Your task to perform on an android device: choose inbox layout in the gmail app Image 0: 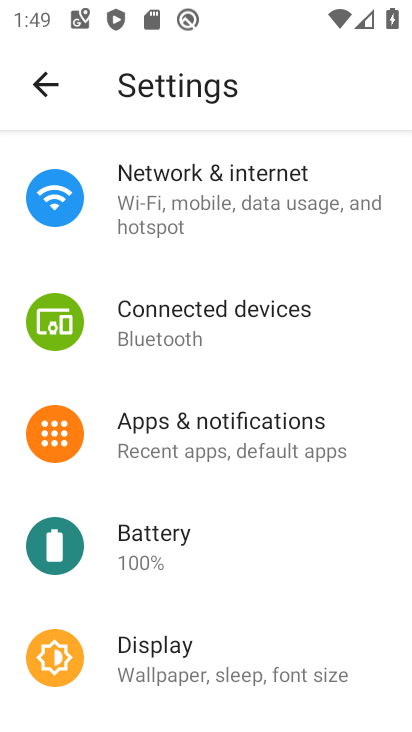
Step 0: press home button
Your task to perform on an android device: choose inbox layout in the gmail app Image 1: 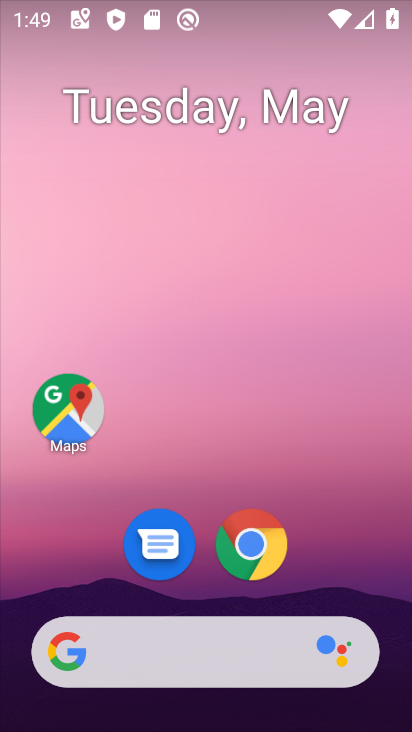
Step 1: drag from (319, 528) to (270, 188)
Your task to perform on an android device: choose inbox layout in the gmail app Image 2: 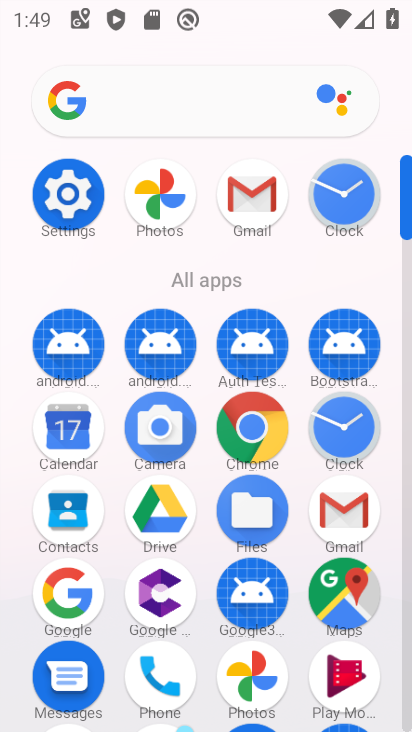
Step 2: click (250, 218)
Your task to perform on an android device: choose inbox layout in the gmail app Image 3: 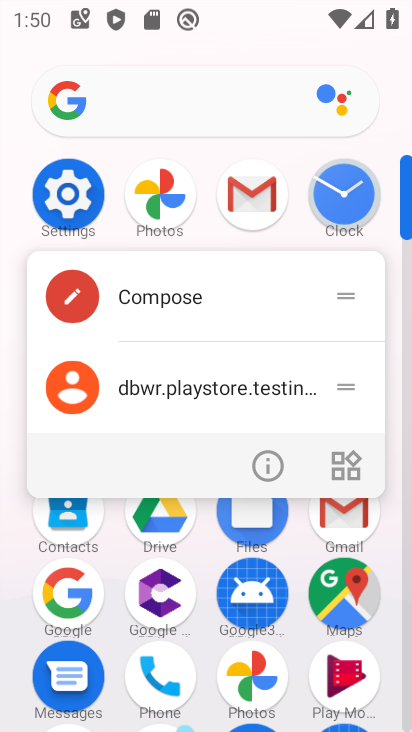
Step 3: click (263, 202)
Your task to perform on an android device: choose inbox layout in the gmail app Image 4: 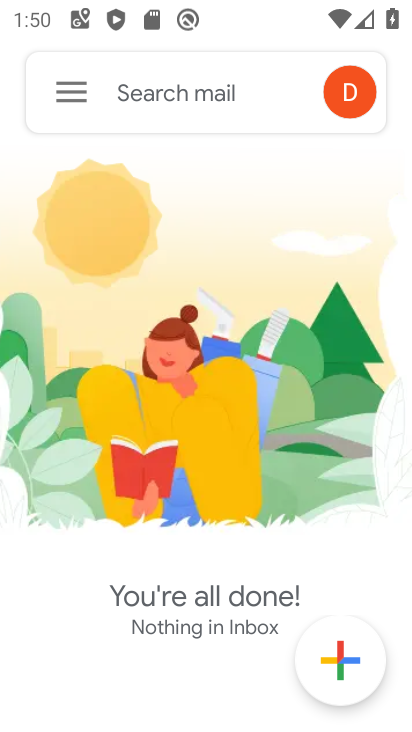
Step 4: click (67, 83)
Your task to perform on an android device: choose inbox layout in the gmail app Image 5: 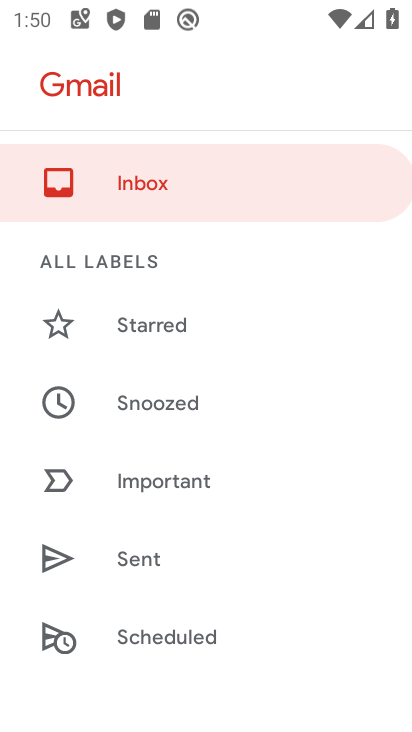
Step 5: drag from (224, 555) to (300, 223)
Your task to perform on an android device: choose inbox layout in the gmail app Image 6: 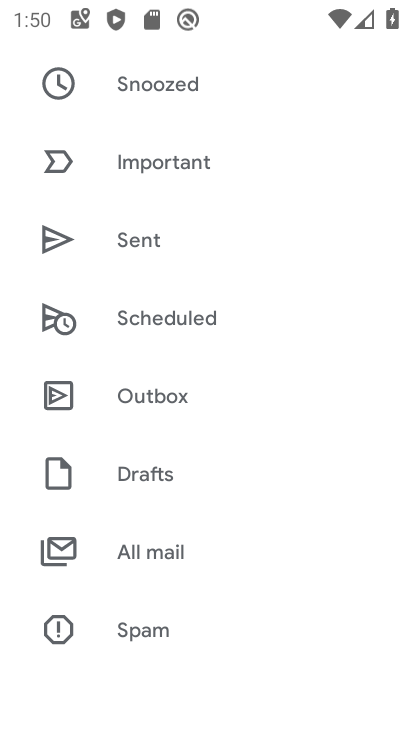
Step 6: drag from (203, 553) to (231, 217)
Your task to perform on an android device: choose inbox layout in the gmail app Image 7: 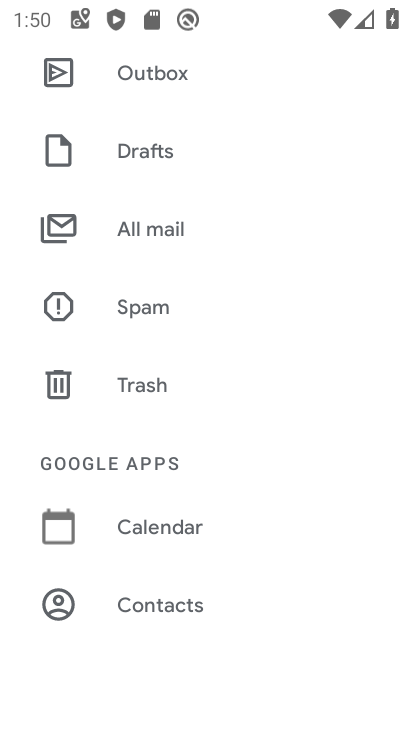
Step 7: drag from (156, 581) to (234, 167)
Your task to perform on an android device: choose inbox layout in the gmail app Image 8: 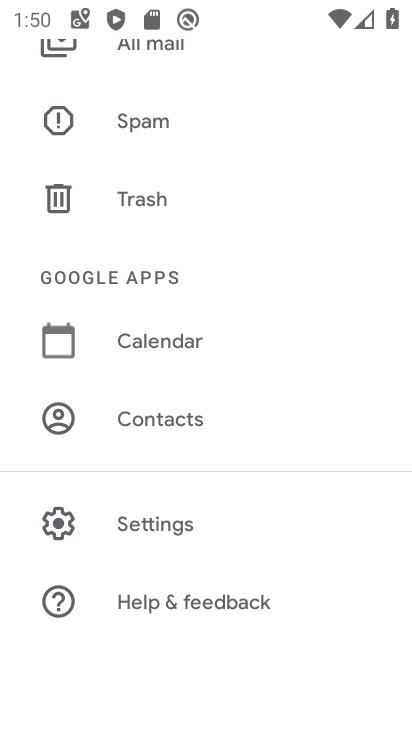
Step 8: click (166, 516)
Your task to perform on an android device: choose inbox layout in the gmail app Image 9: 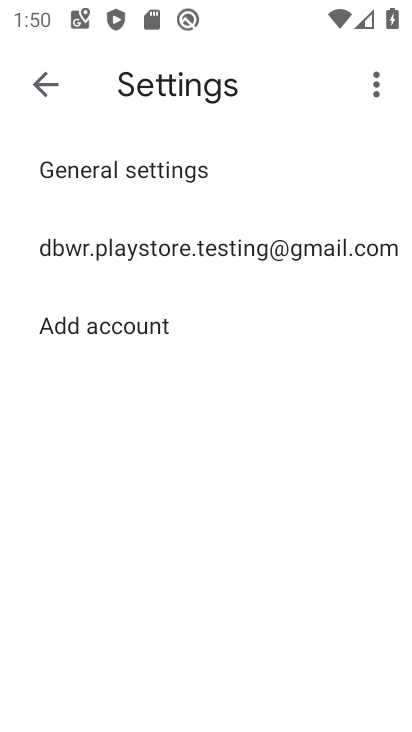
Step 9: click (198, 263)
Your task to perform on an android device: choose inbox layout in the gmail app Image 10: 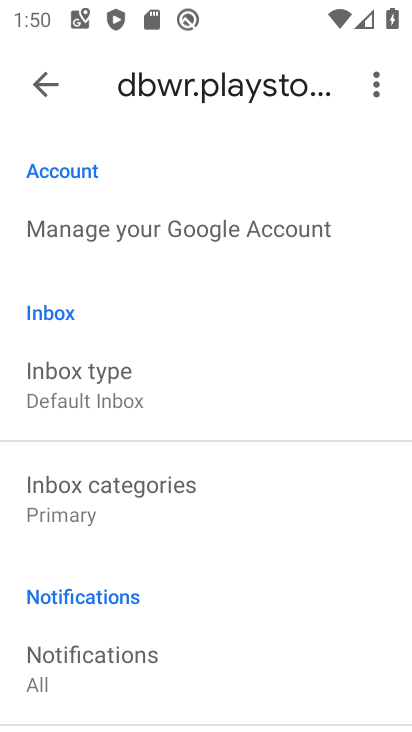
Step 10: click (138, 381)
Your task to perform on an android device: choose inbox layout in the gmail app Image 11: 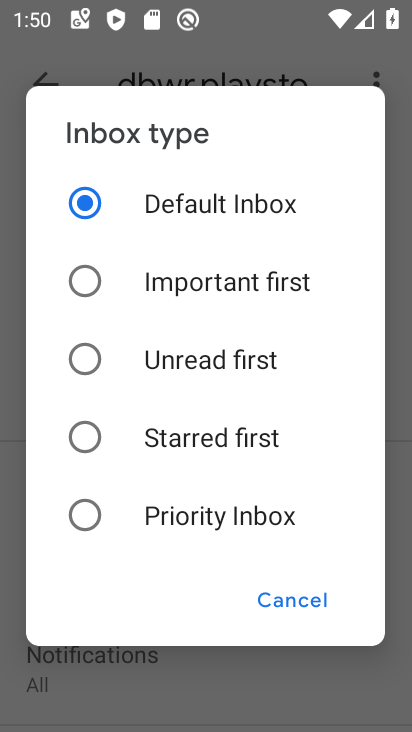
Step 11: task complete